Your task to perform on an android device: move an email to a new category in the gmail app Image 0: 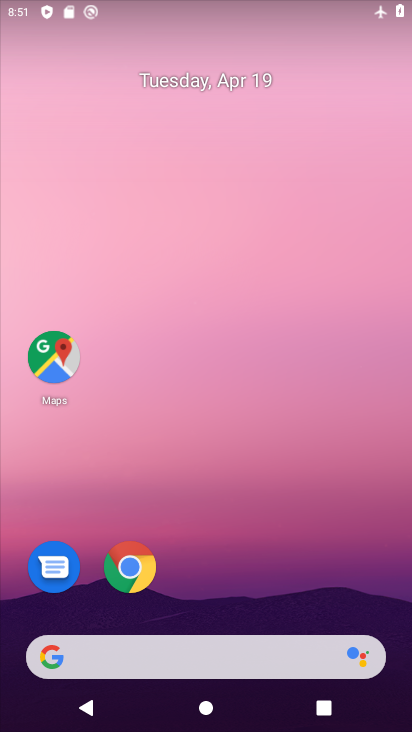
Step 0: drag from (208, 725) to (208, 107)
Your task to perform on an android device: move an email to a new category in the gmail app Image 1: 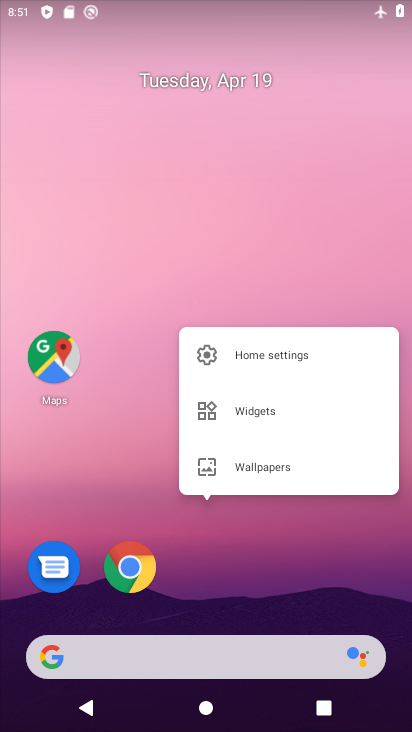
Step 1: click (210, 251)
Your task to perform on an android device: move an email to a new category in the gmail app Image 2: 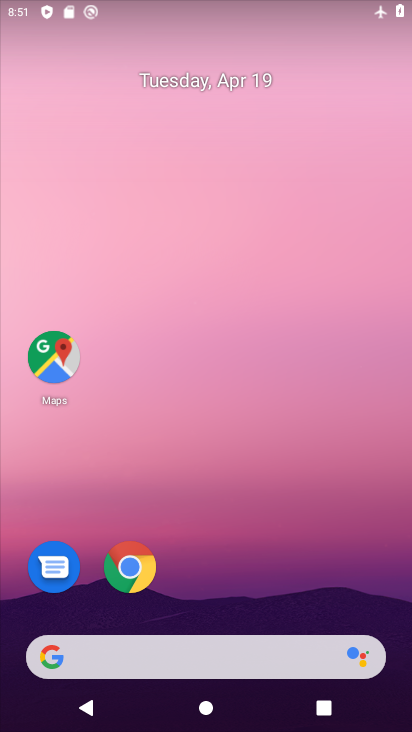
Step 2: drag from (208, 725) to (208, 143)
Your task to perform on an android device: move an email to a new category in the gmail app Image 3: 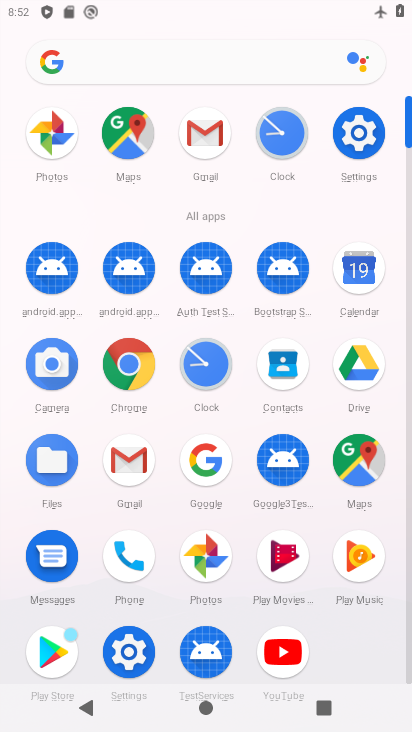
Step 3: click (131, 471)
Your task to perform on an android device: move an email to a new category in the gmail app Image 4: 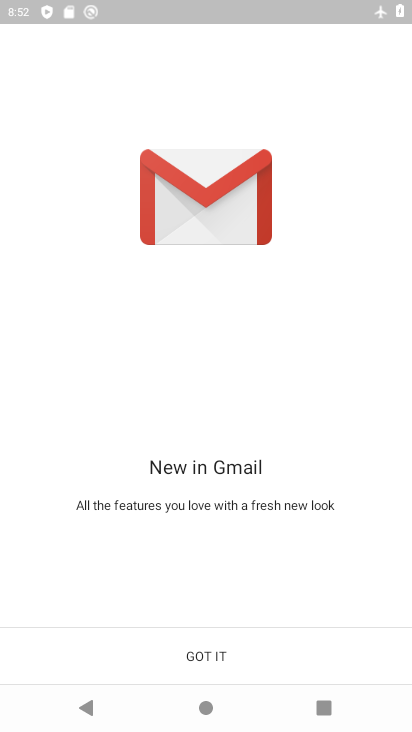
Step 4: click (220, 648)
Your task to perform on an android device: move an email to a new category in the gmail app Image 5: 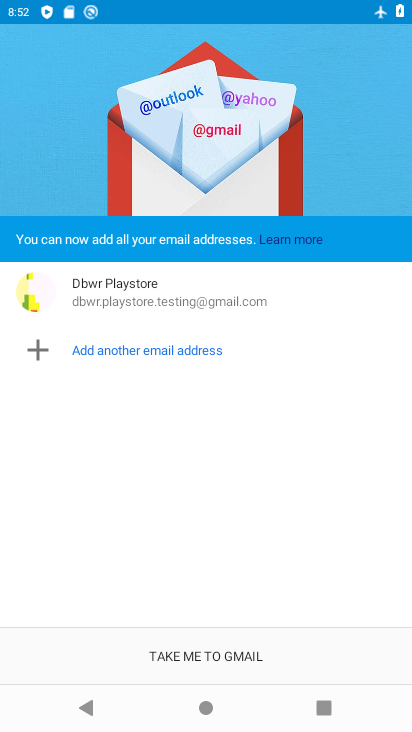
Step 5: click (220, 648)
Your task to perform on an android device: move an email to a new category in the gmail app Image 6: 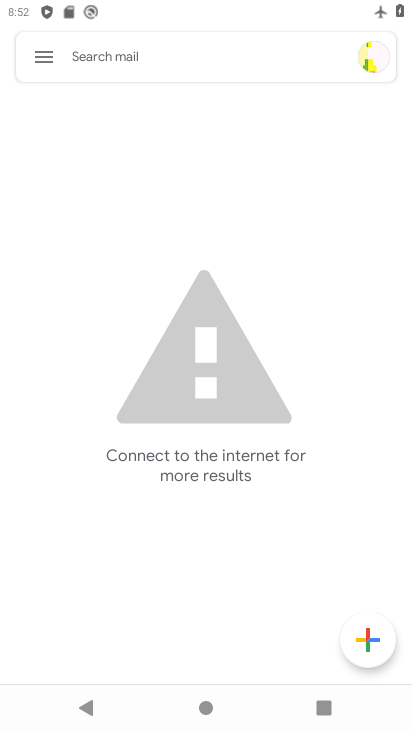
Step 6: task complete